Your task to perform on an android device: turn on translation in the chrome app Image 0: 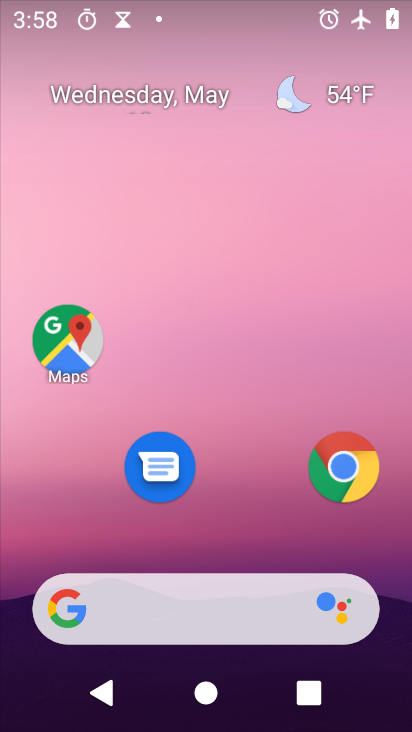
Step 0: click (348, 483)
Your task to perform on an android device: turn on translation in the chrome app Image 1: 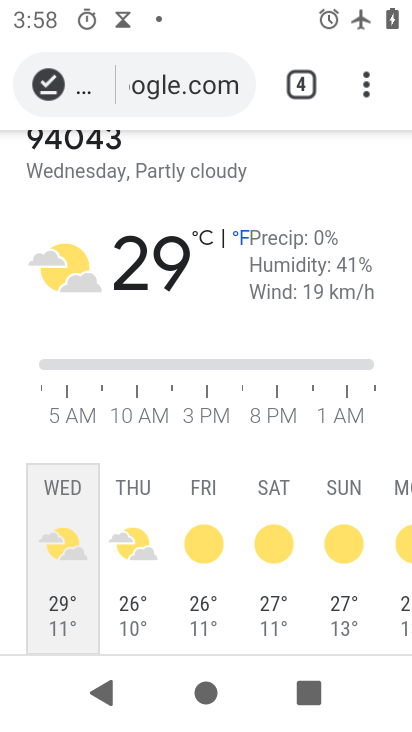
Step 1: click (348, 483)
Your task to perform on an android device: turn on translation in the chrome app Image 2: 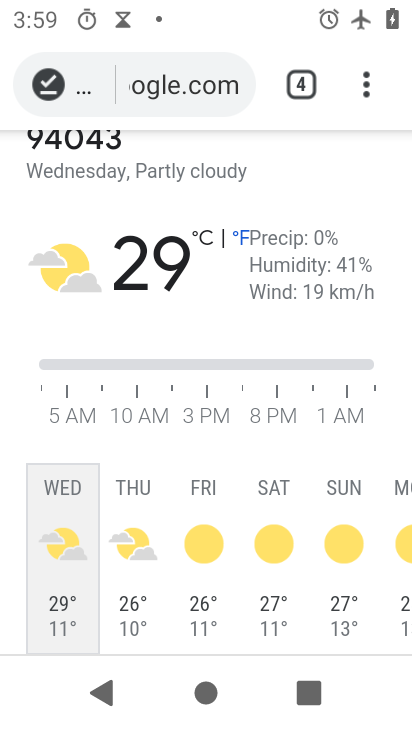
Step 2: click (368, 89)
Your task to perform on an android device: turn on translation in the chrome app Image 3: 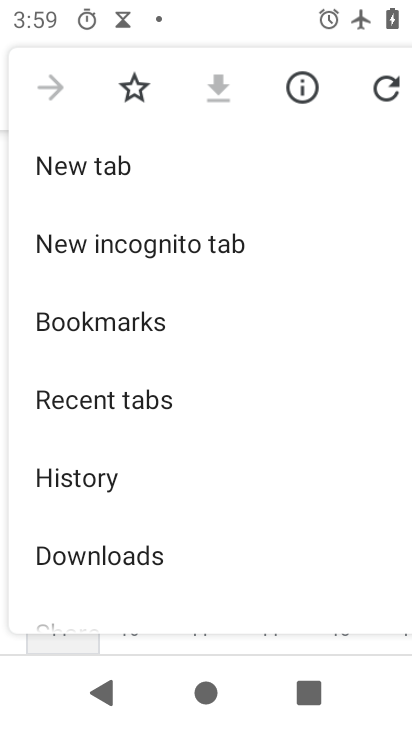
Step 3: drag from (230, 641) to (228, 259)
Your task to perform on an android device: turn on translation in the chrome app Image 4: 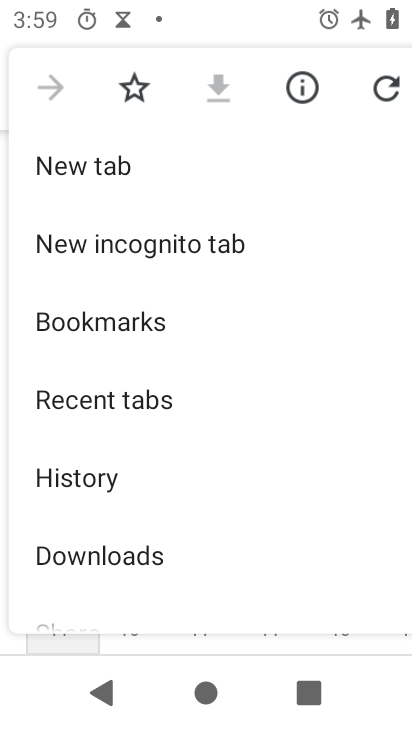
Step 4: drag from (276, 616) to (302, 53)
Your task to perform on an android device: turn on translation in the chrome app Image 5: 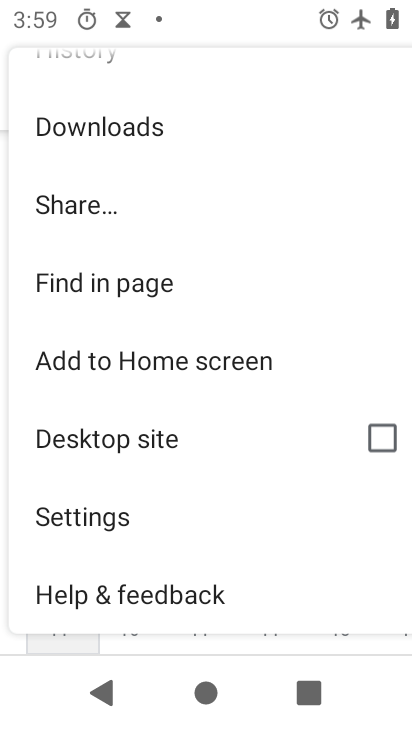
Step 5: drag from (280, 565) to (285, 164)
Your task to perform on an android device: turn on translation in the chrome app Image 6: 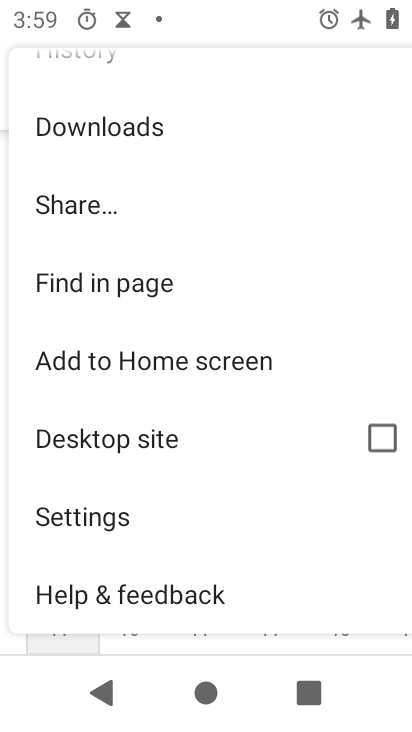
Step 6: click (178, 525)
Your task to perform on an android device: turn on translation in the chrome app Image 7: 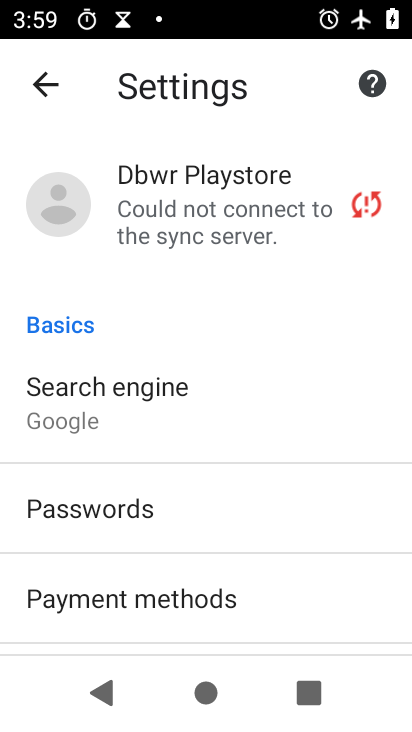
Step 7: drag from (236, 633) to (257, 71)
Your task to perform on an android device: turn on translation in the chrome app Image 8: 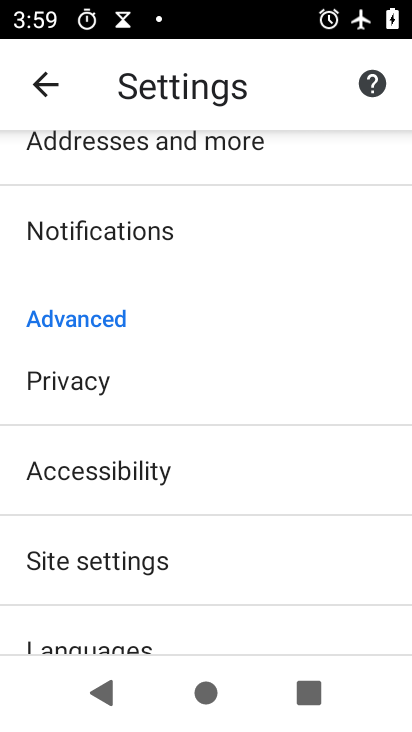
Step 8: drag from (253, 581) to (243, 344)
Your task to perform on an android device: turn on translation in the chrome app Image 9: 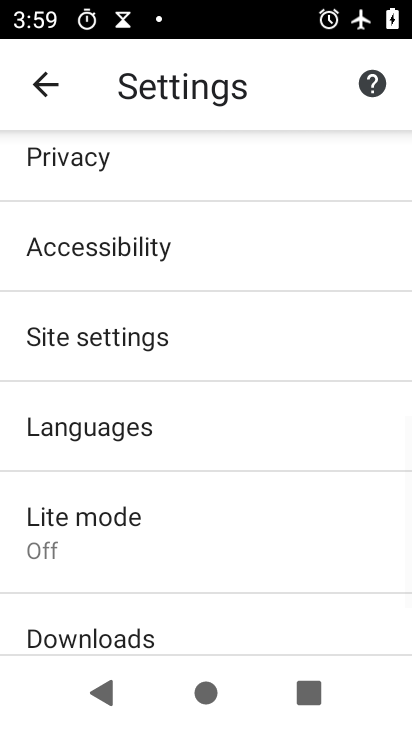
Step 9: click (242, 429)
Your task to perform on an android device: turn on translation in the chrome app Image 10: 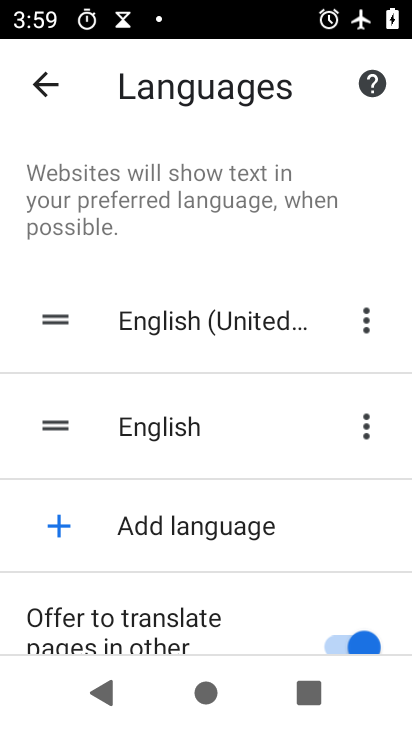
Step 10: task complete